Your task to perform on an android device: empty trash in google photos Image 0: 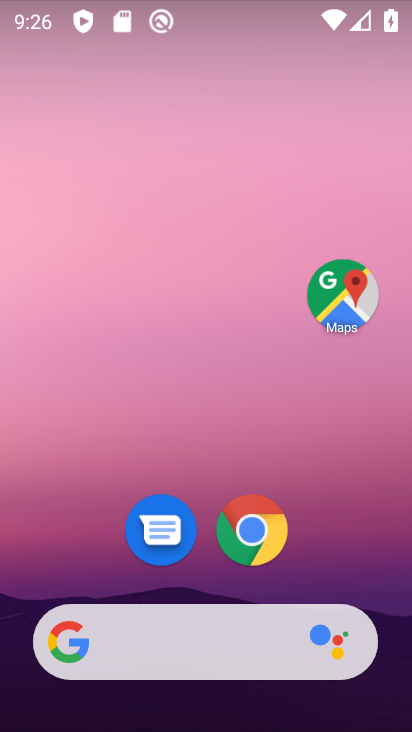
Step 0: drag from (76, 581) to (168, 95)
Your task to perform on an android device: empty trash in google photos Image 1: 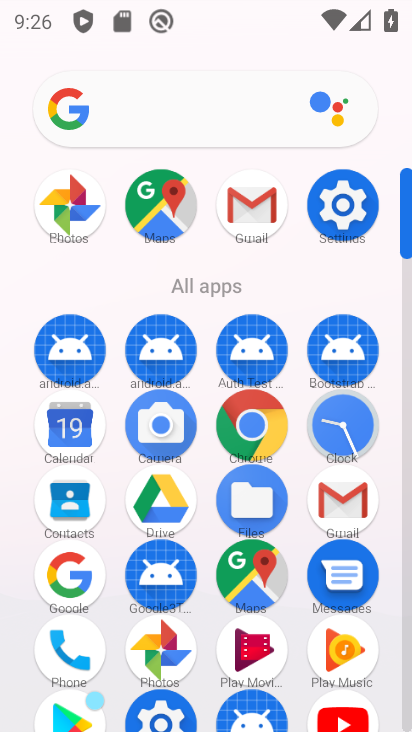
Step 1: click (164, 652)
Your task to perform on an android device: empty trash in google photos Image 2: 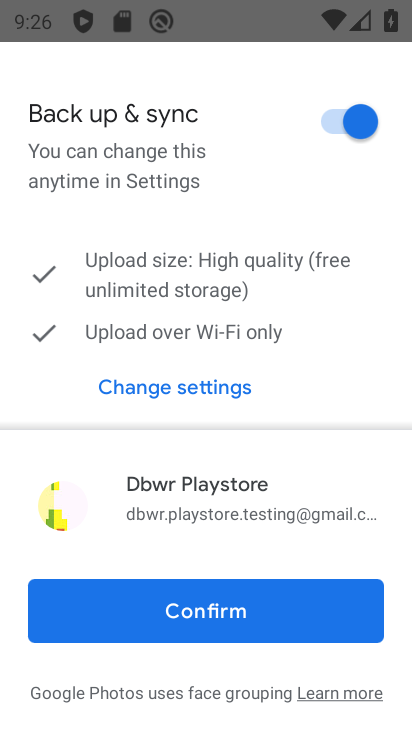
Step 2: click (239, 618)
Your task to perform on an android device: empty trash in google photos Image 3: 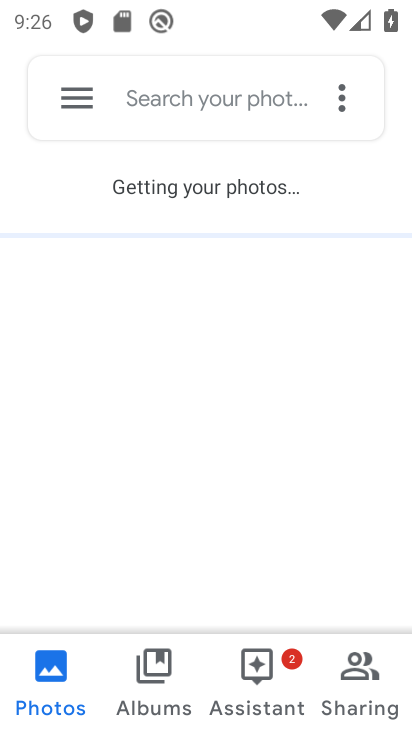
Step 3: click (87, 107)
Your task to perform on an android device: empty trash in google photos Image 4: 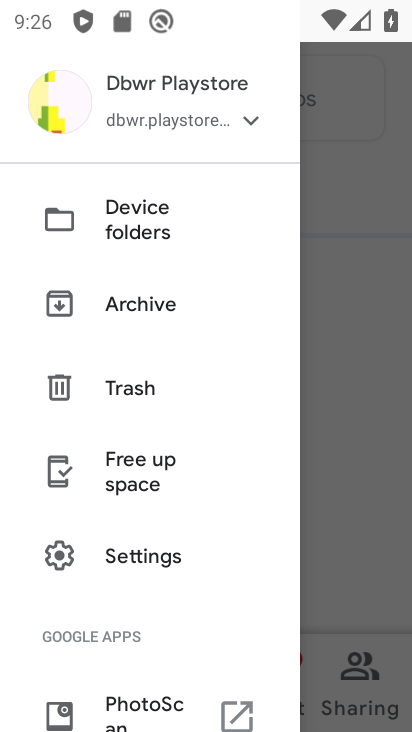
Step 4: click (168, 386)
Your task to perform on an android device: empty trash in google photos Image 5: 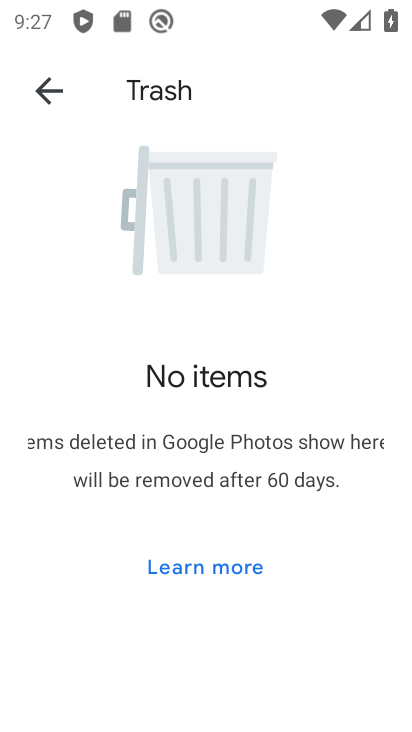
Step 5: task complete